Your task to perform on an android device: open a new tab in the chrome app Image 0: 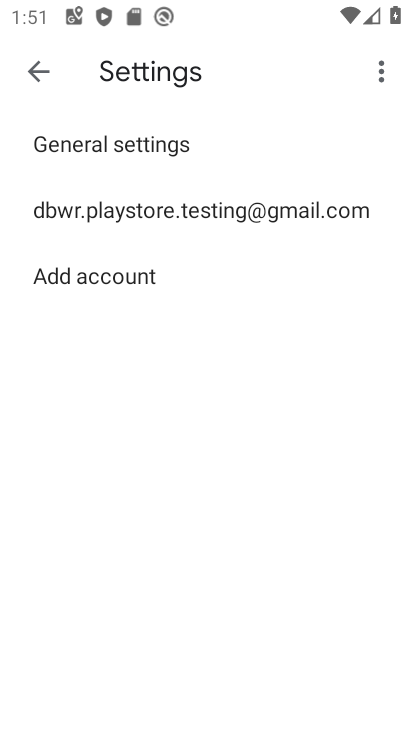
Step 0: press home button
Your task to perform on an android device: open a new tab in the chrome app Image 1: 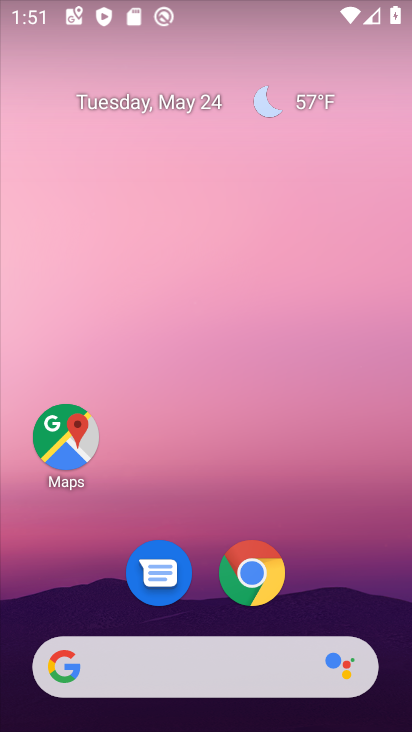
Step 1: click (240, 570)
Your task to perform on an android device: open a new tab in the chrome app Image 2: 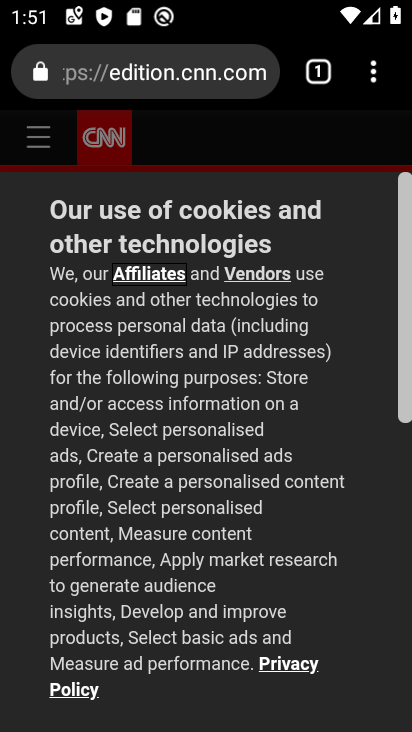
Step 2: click (379, 72)
Your task to perform on an android device: open a new tab in the chrome app Image 3: 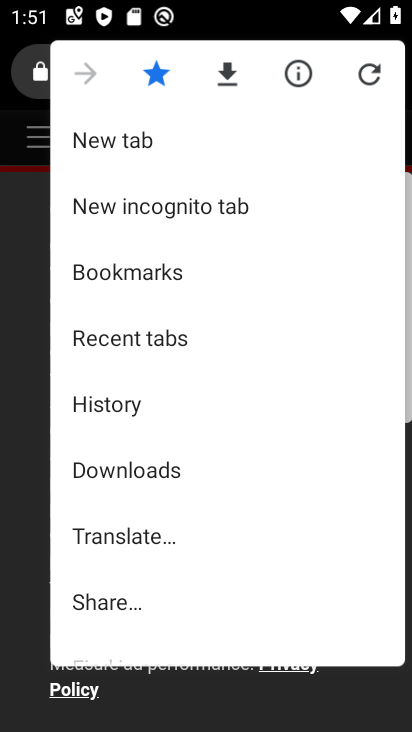
Step 3: click (193, 158)
Your task to perform on an android device: open a new tab in the chrome app Image 4: 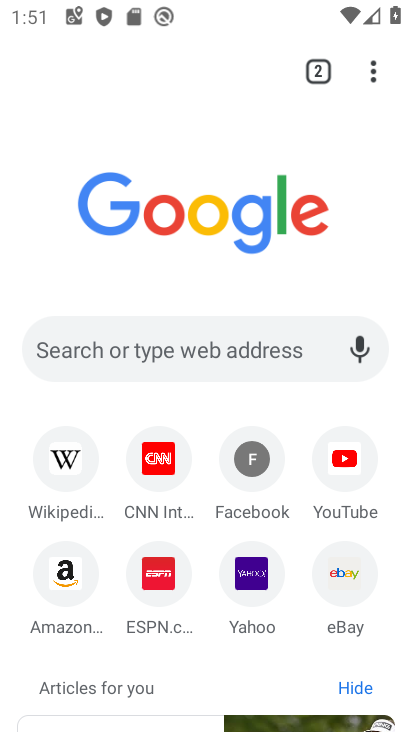
Step 4: task complete